Your task to perform on an android device: toggle airplane mode Image 0: 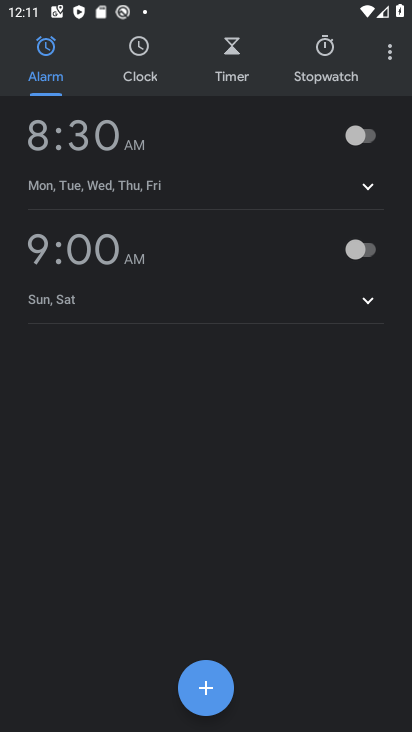
Step 0: press home button
Your task to perform on an android device: toggle airplane mode Image 1: 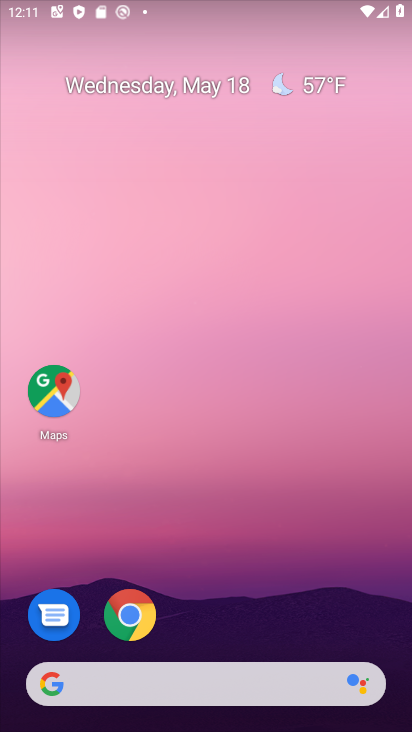
Step 1: drag from (350, 600) to (243, 115)
Your task to perform on an android device: toggle airplane mode Image 2: 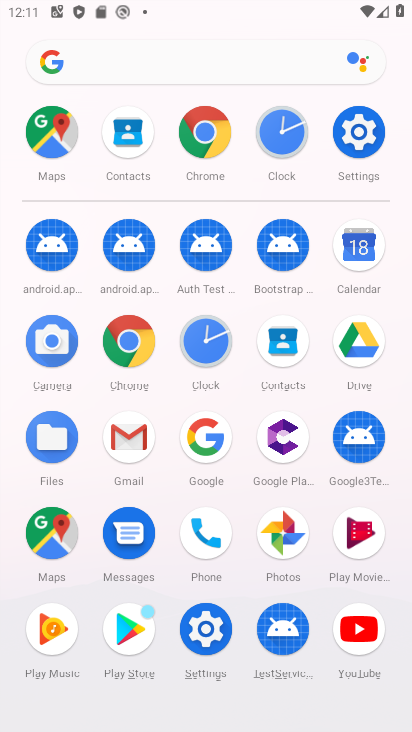
Step 2: drag from (258, 2) to (259, 533)
Your task to perform on an android device: toggle airplane mode Image 3: 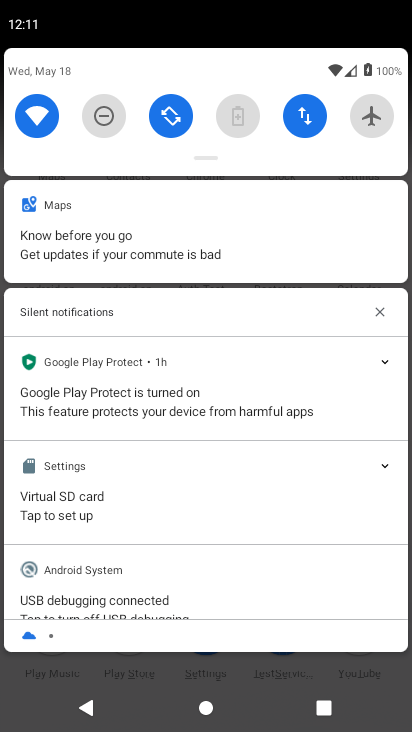
Step 3: click (370, 107)
Your task to perform on an android device: toggle airplane mode Image 4: 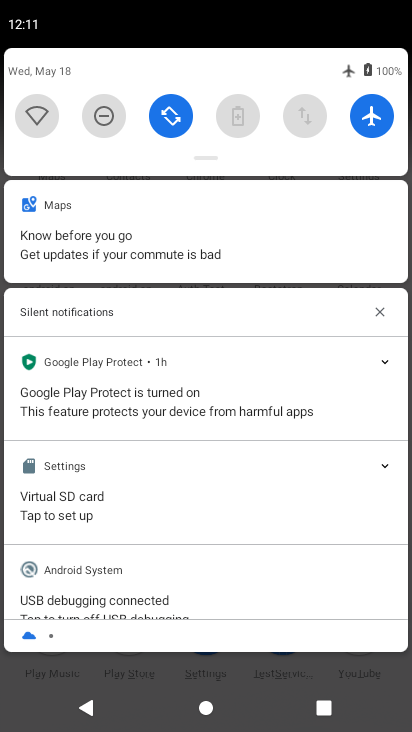
Step 4: task complete